Your task to perform on an android device: Is it going to rain this weekend? Image 0: 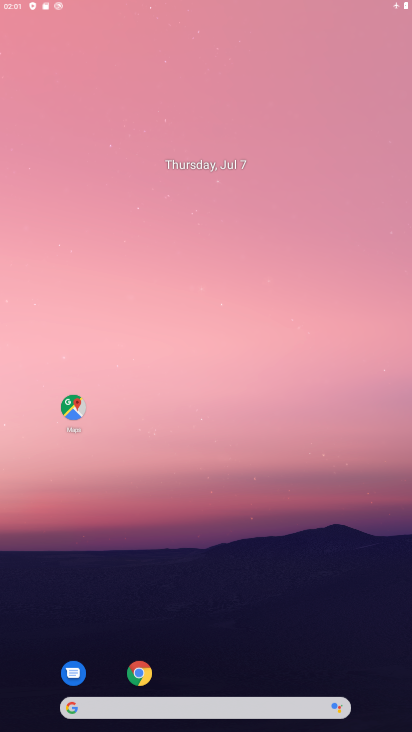
Step 0: drag from (197, 469) to (191, 188)
Your task to perform on an android device: Is it going to rain this weekend? Image 1: 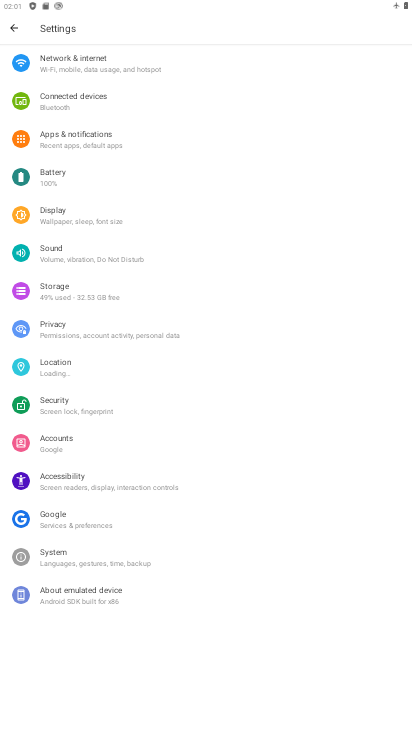
Step 1: press home button
Your task to perform on an android device: Is it going to rain this weekend? Image 2: 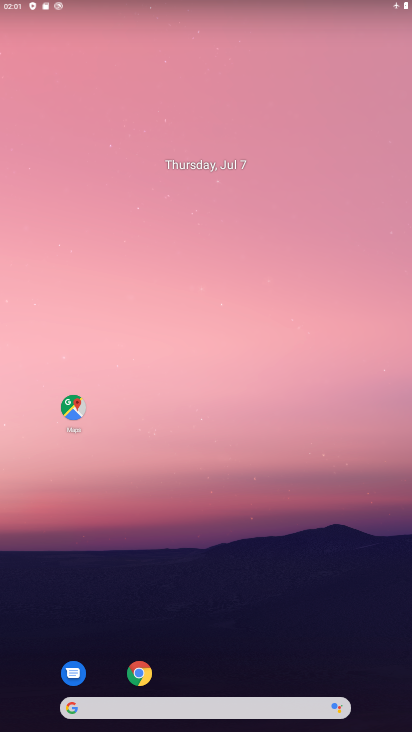
Step 2: drag from (221, 467) to (221, 186)
Your task to perform on an android device: Is it going to rain this weekend? Image 3: 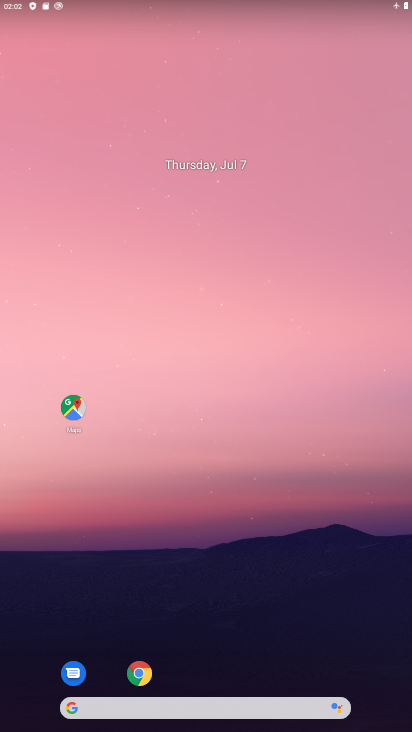
Step 3: drag from (217, 667) to (232, 204)
Your task to perform on an android device: Is it going to rain this weekend? Image 4: 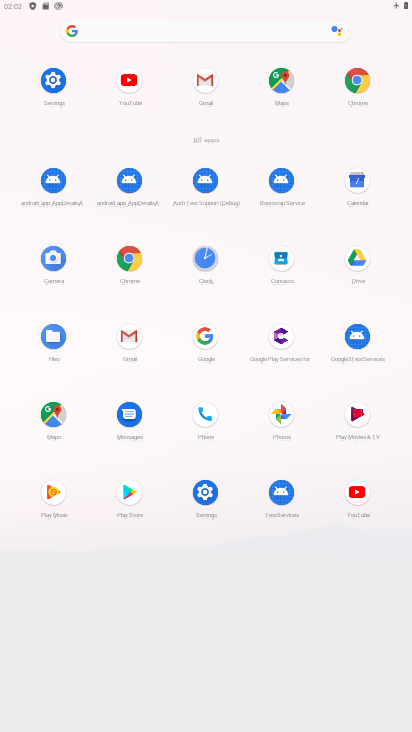
Step 4: click (199, 339)
Your task to perform on an android device: Is it going to rain this weekend? Image 5: 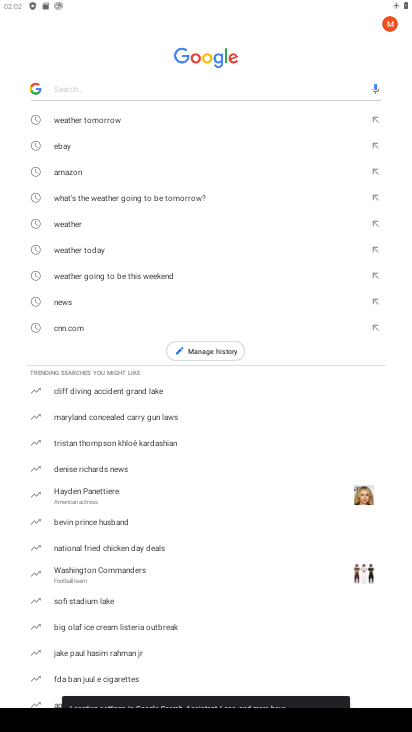
Step 5: click (167, 87)
Your task to perform on an android device: Is it going to rain this weekend? Image 6: 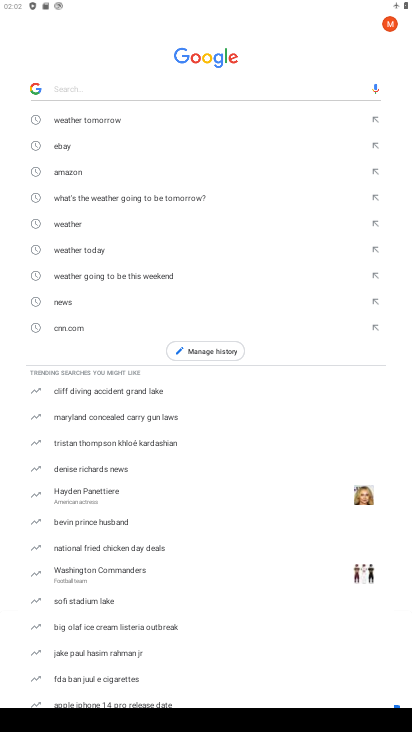
Step 6: click (80, 229)
Your task to perform on an android device: Is it going to rain this weekend? Image 7: 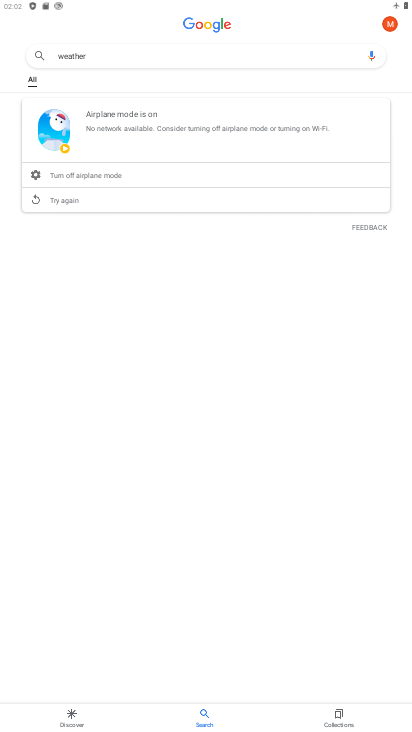
Step 7: task complete